Your task to perform on an android device: Search for Mexican restaurants on Maps Image 0: 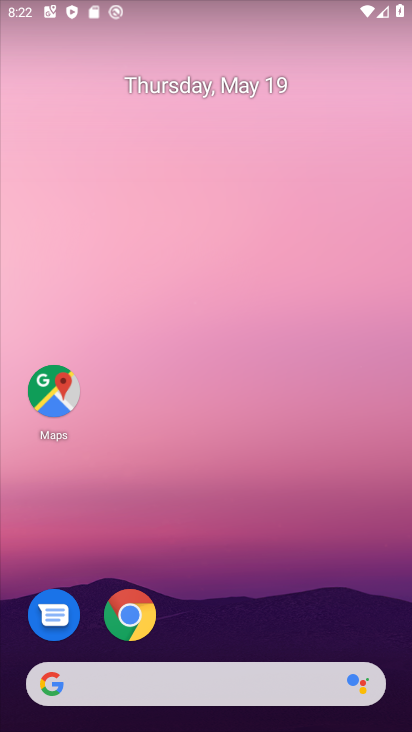
Step 0: drag from (220, 610) to (226, 521)
Your task to perform on an android device: Search for Mexican restaurants on Maps Image 1: 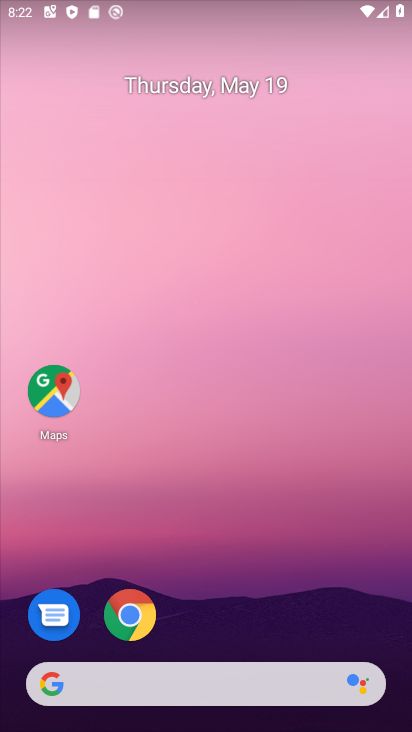
Step 1: click (60, 392)
Your task to perform on an android device: Search for Mexican restaurants on Maps Image 2: 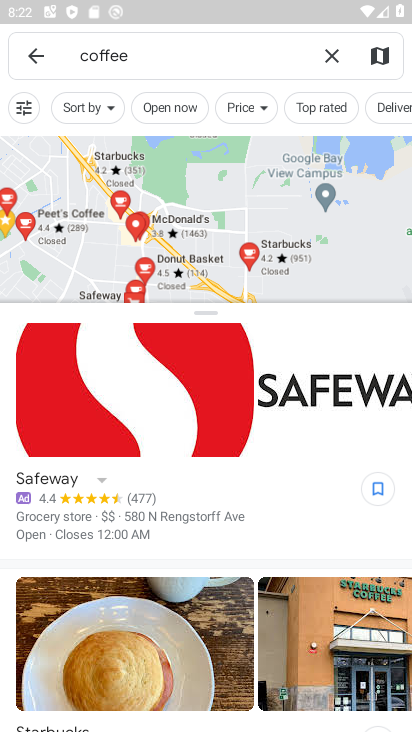
Step 2: click (331, 49)
Your task to perform on an android device: Search for Mexican restaurants on Maps Image 3: 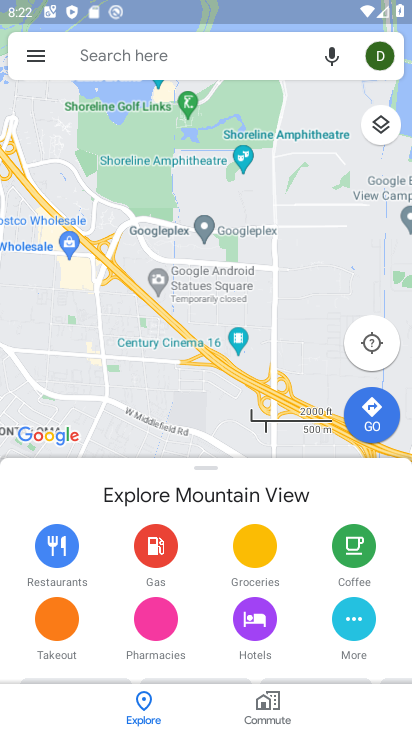
Step 3: click (188, 55)
Your task to perform on an android device: Search for Mexican restaurants on Maps Image 4: 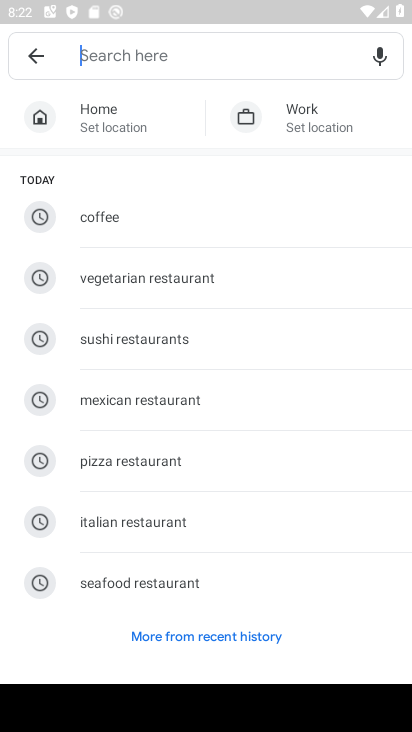
Step 4: click (164, 402)
Your task to perform on an android device: Search for Mexican restaurants on Maps Image 5: 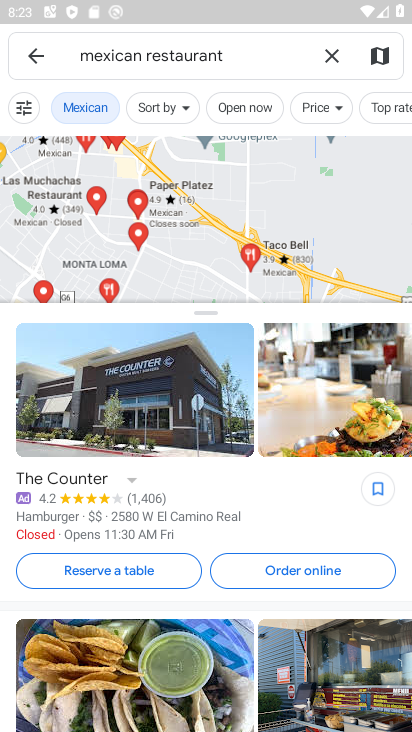
Step 5: task complete